Your task to perform on an android device: What's the price of the Hisense TV? Image 0: 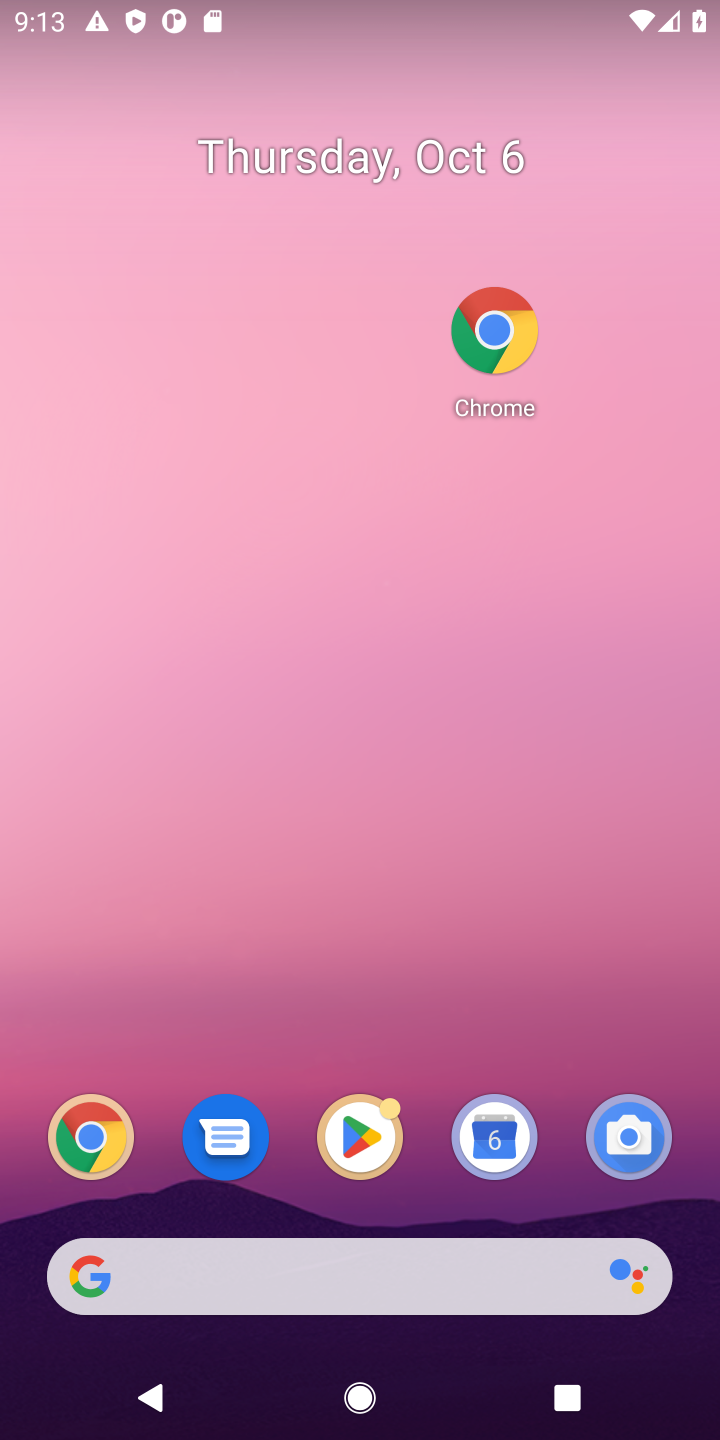
Step 0: click (87, 1145)
Your task to perform on an android device: What's the price of the Hisense TV? Image 1: 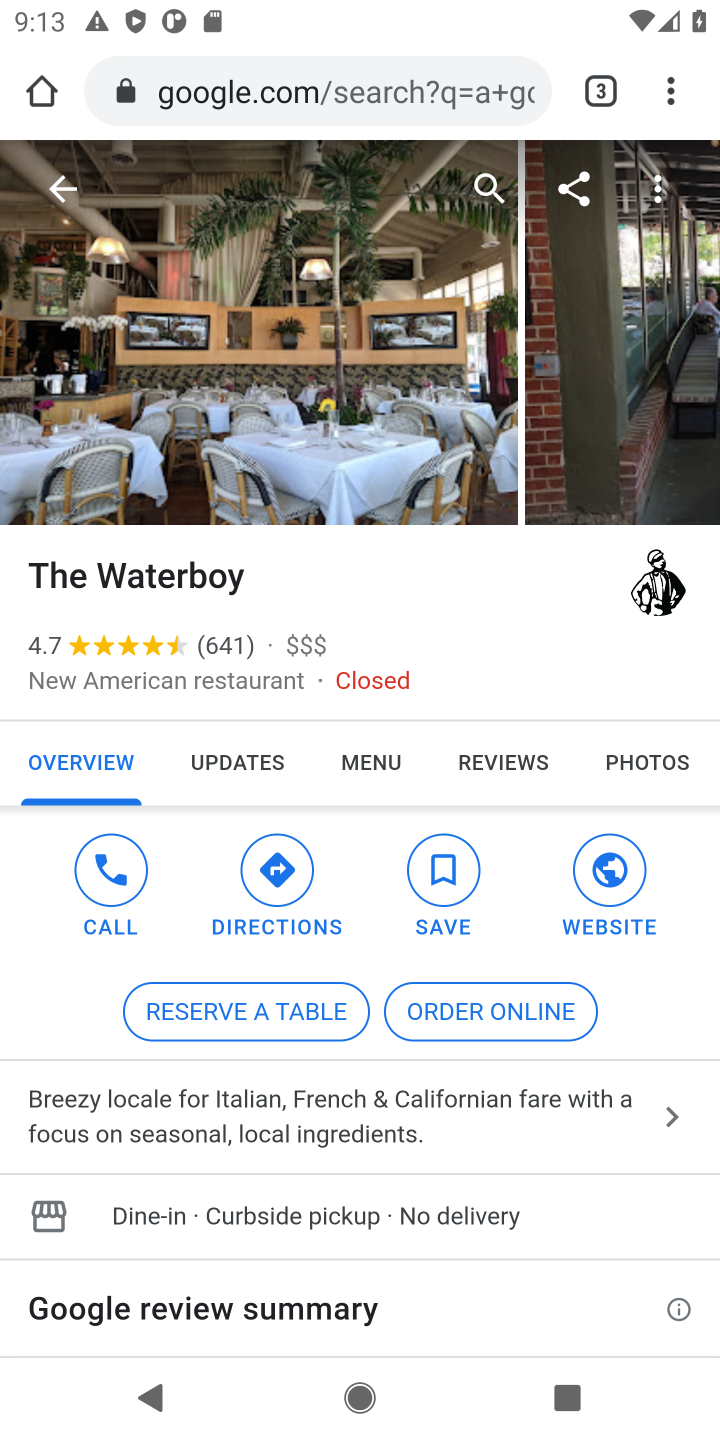
Step 1: click (348, 93)
Your task to perform on an android device: What's the price of the Hisense TV? Image 2: 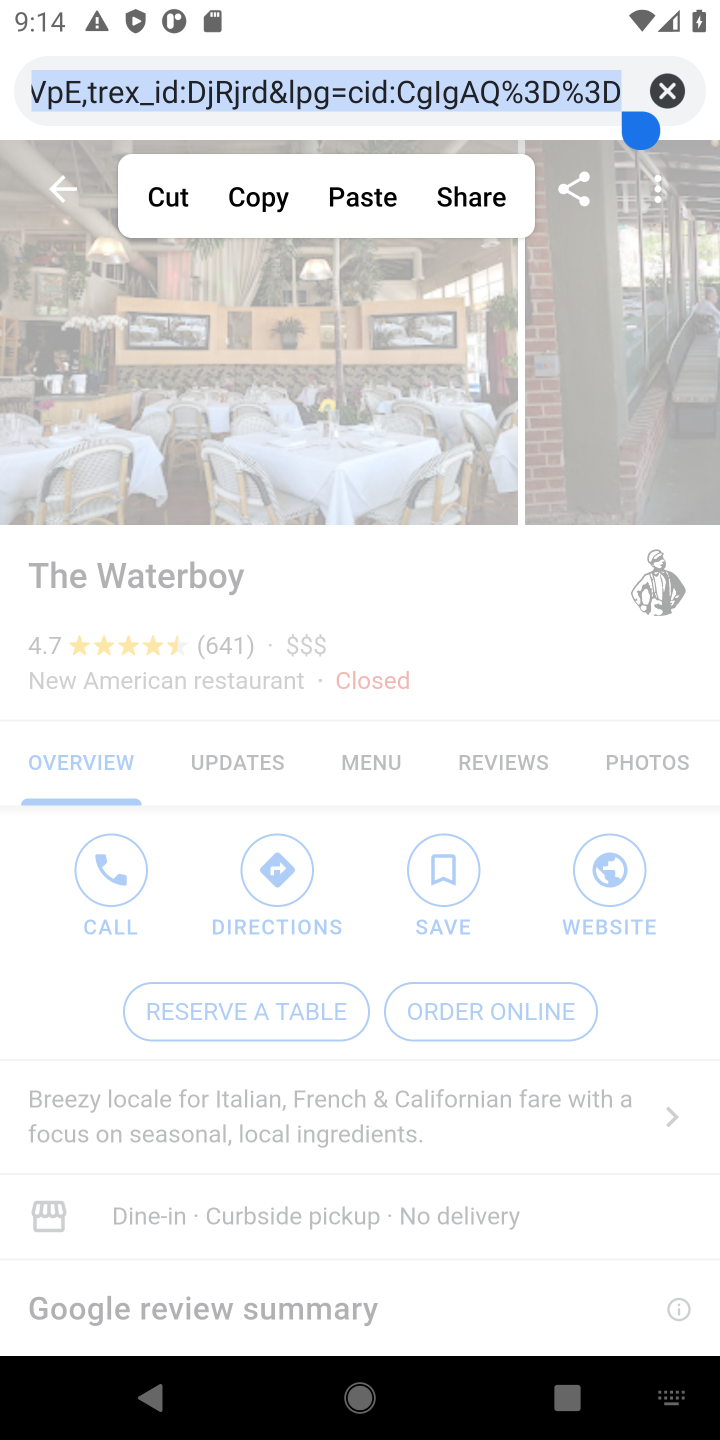
Step 2: click (672, 93)
Your task to perform on an android device: What's the price of the Hisense TV? Image 3: 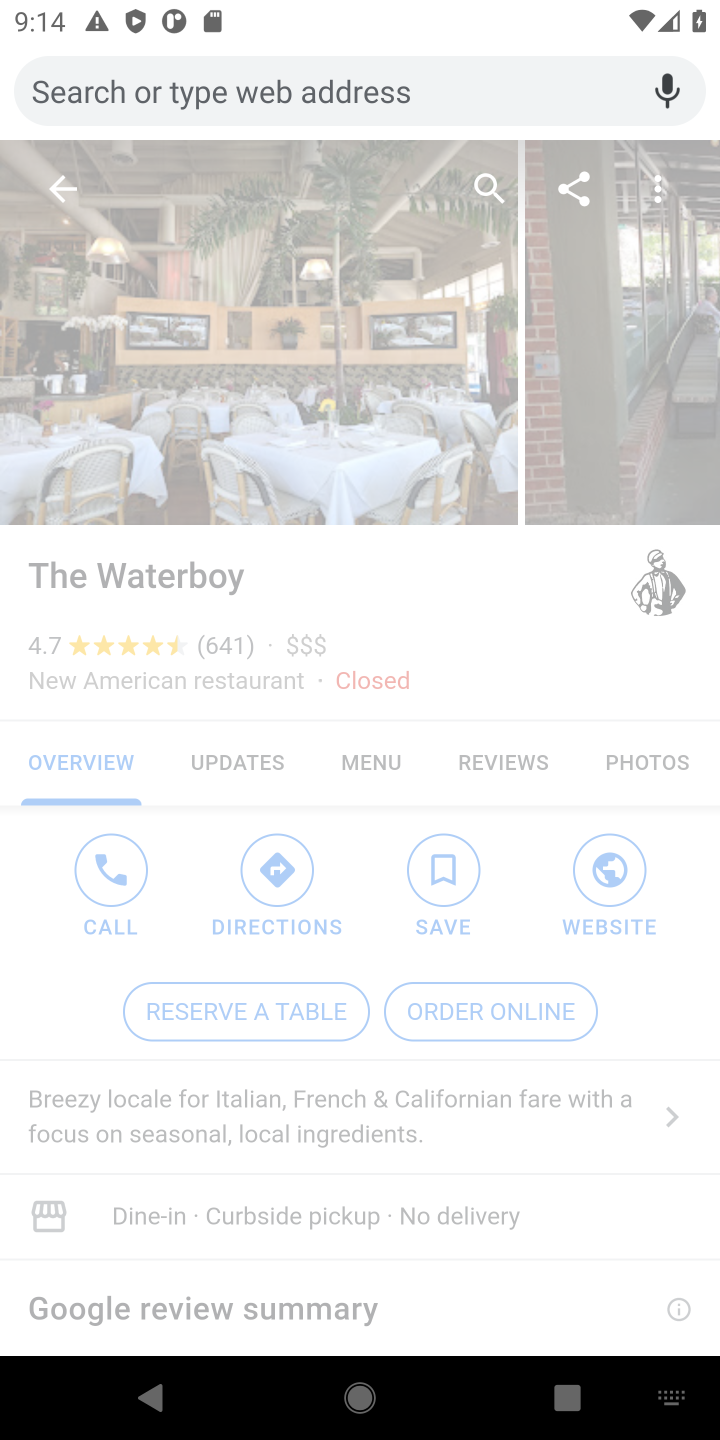
Step 3: type "the price of the Hisense TV"
Your task to perform on an android device: What's the price of the Hisense TV? Image 4: 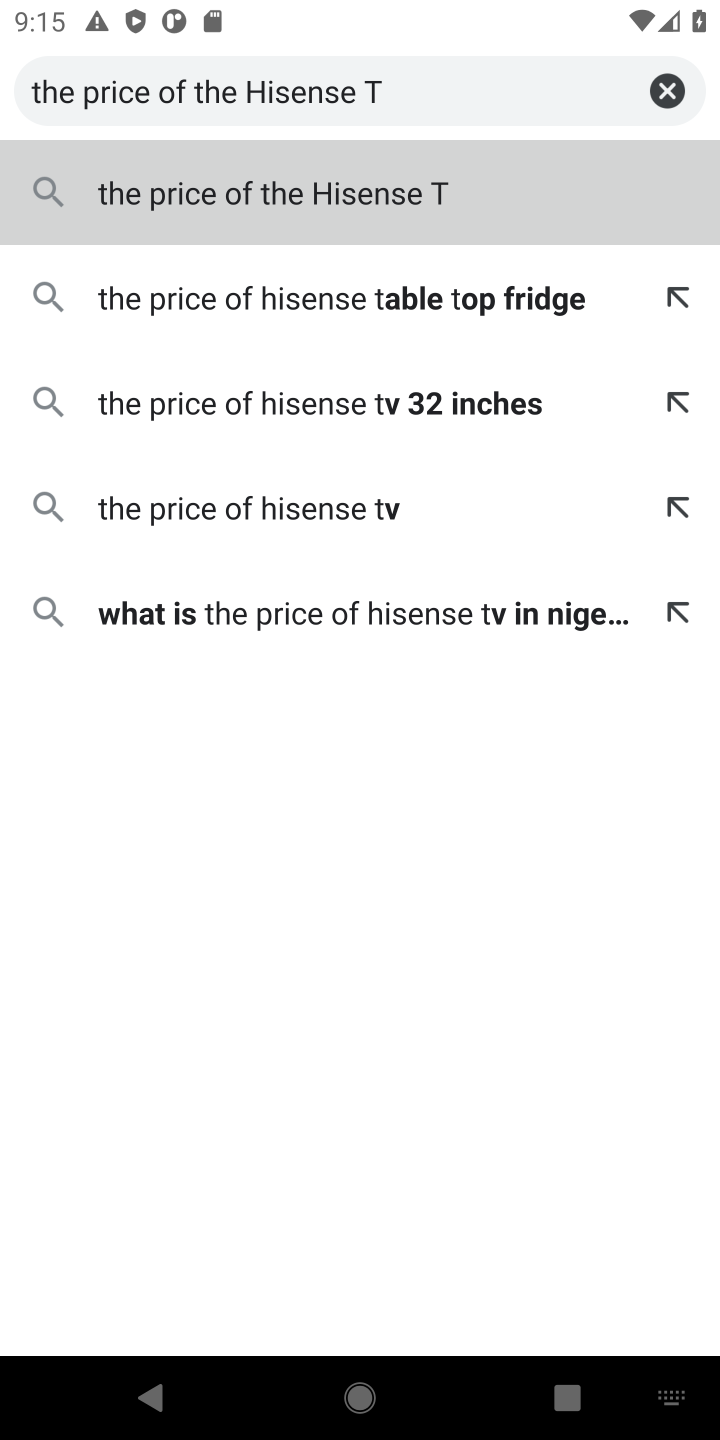
Step 4: click (331, 516)
Your task to perform on an android device: What's the price of the Hisense TV? Image 5: 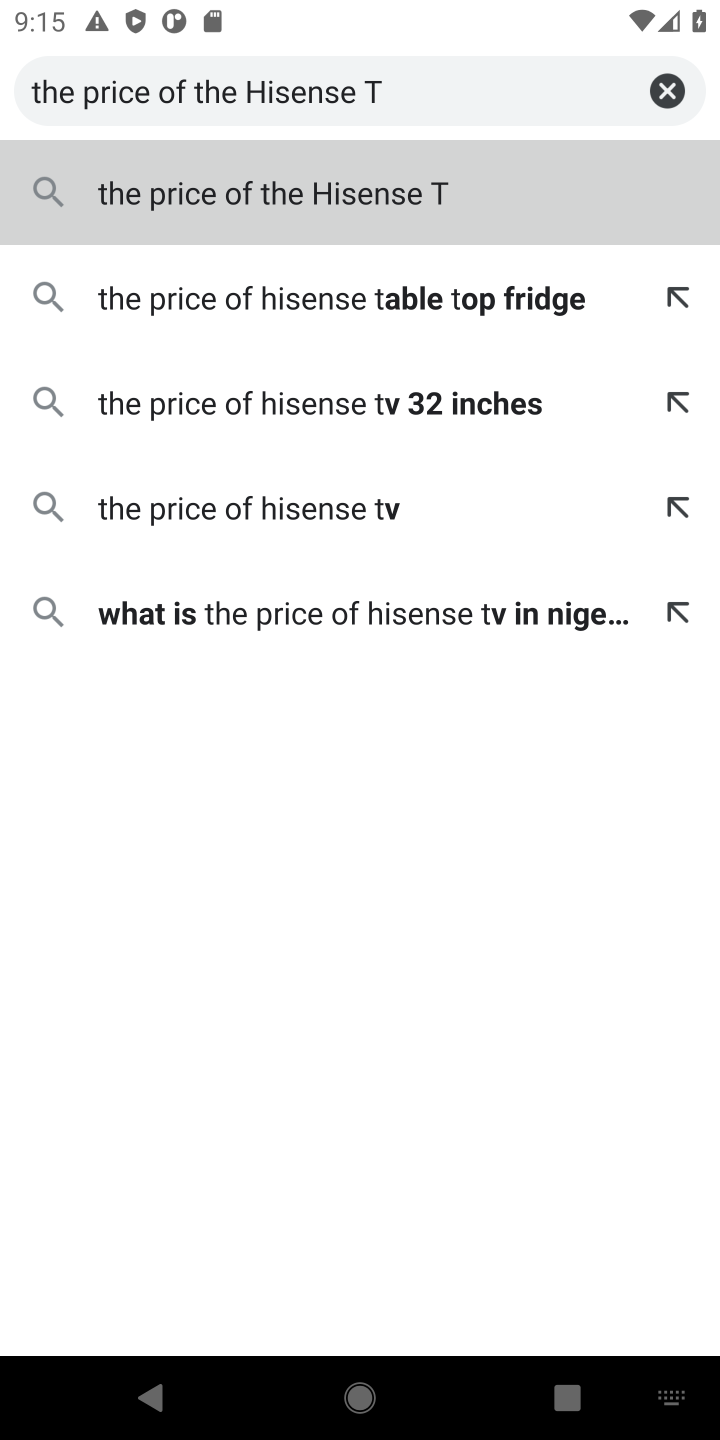
Step 5: click (217, 498)
Your task to perform on an android device: What's the price of the Hisense TV? Image 6: 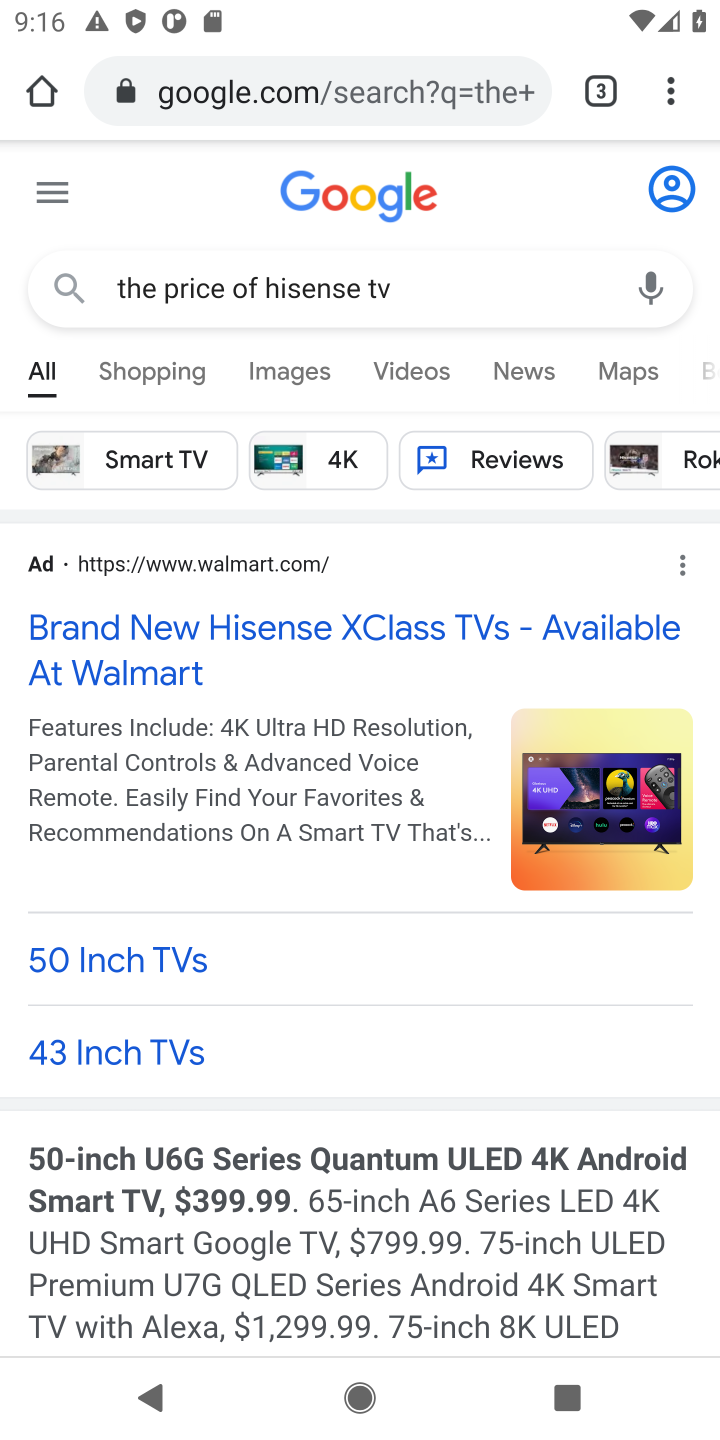
Step 6: click (129, 633)
Your task to perform on an android device: What's the price of the Hisense TV? Image 7: 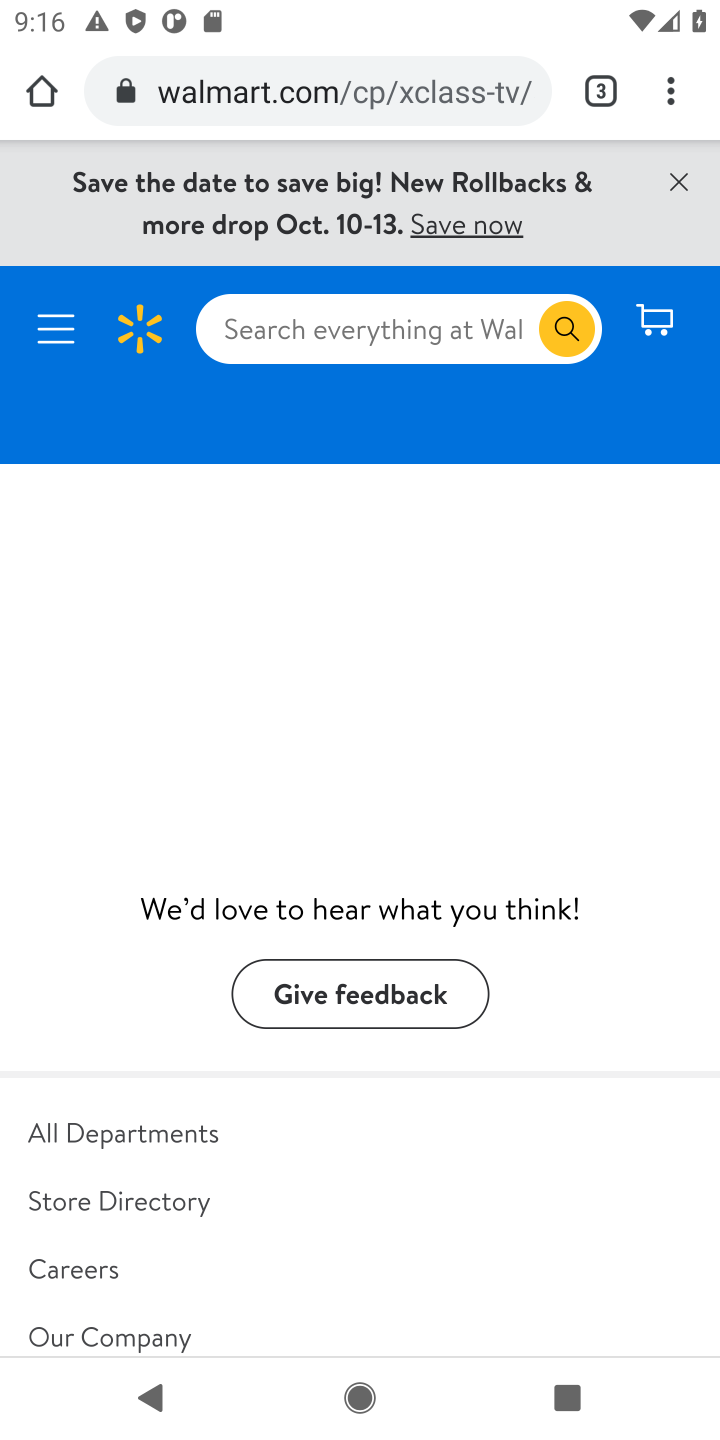
Step 7: drag from (580, 1129) to (482, 310)
Your task to perform on an android device: What's the price of the Hisense TV? Image 8: 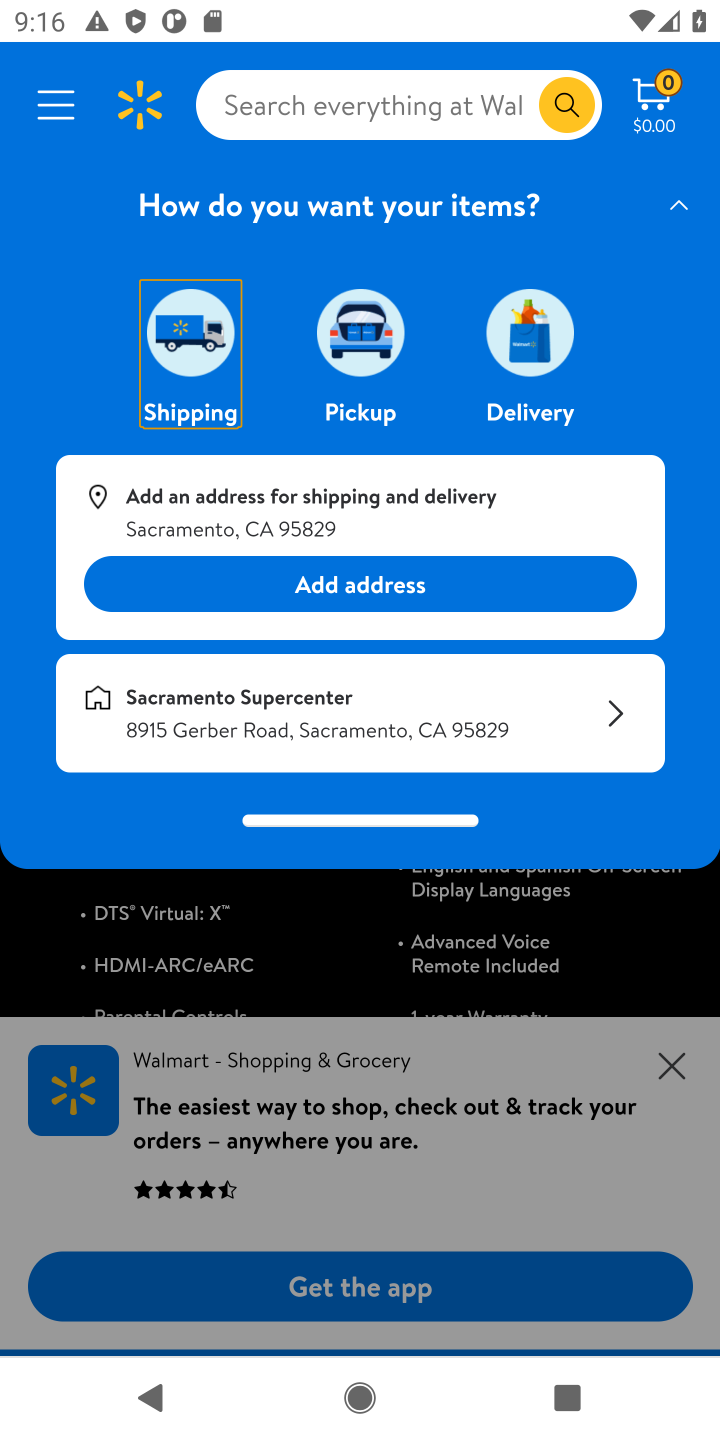
Step 8: drag from (540, 949) to (488, 376)
Your task to perform on an android device: What's the price of the Hisense TV? Image 9: 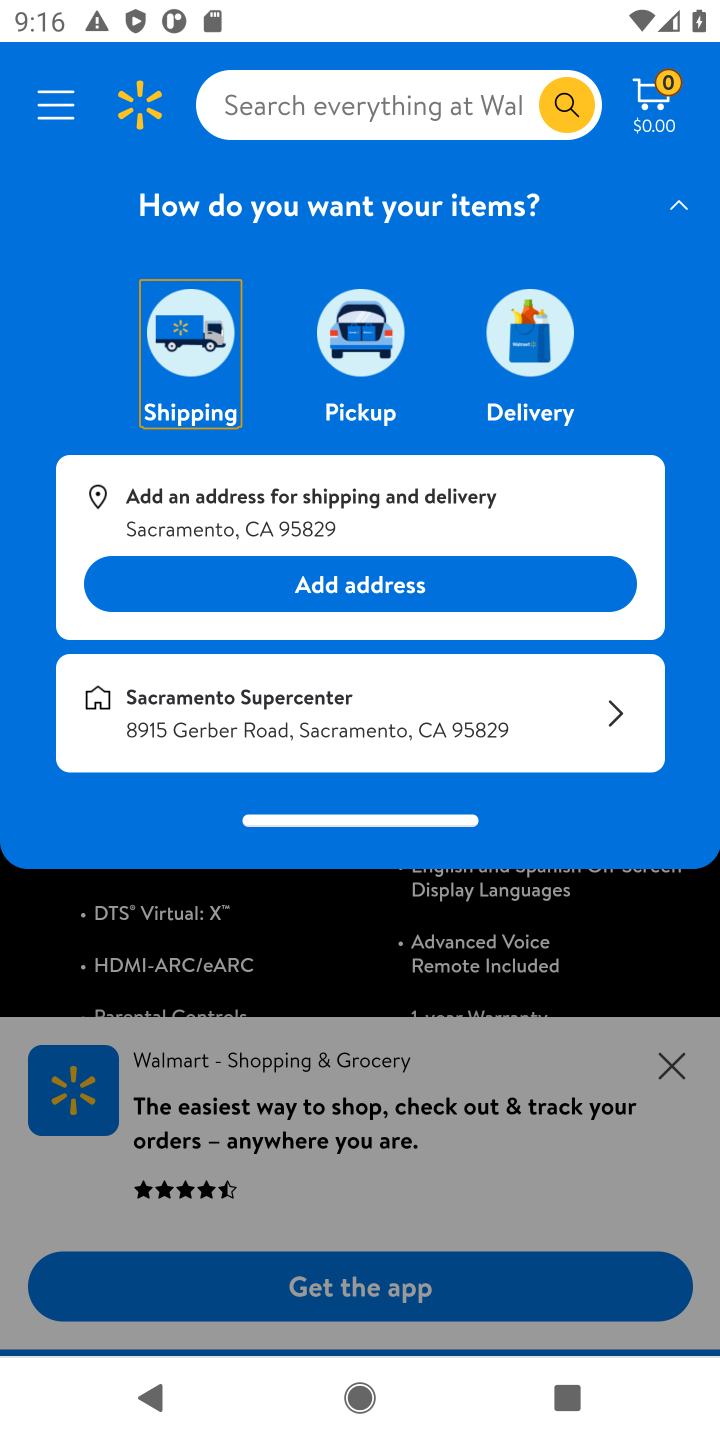
Step 9: click (667, 1059)
Your task to perform on an android device: What's the price of the Hisense TV? Image 10: 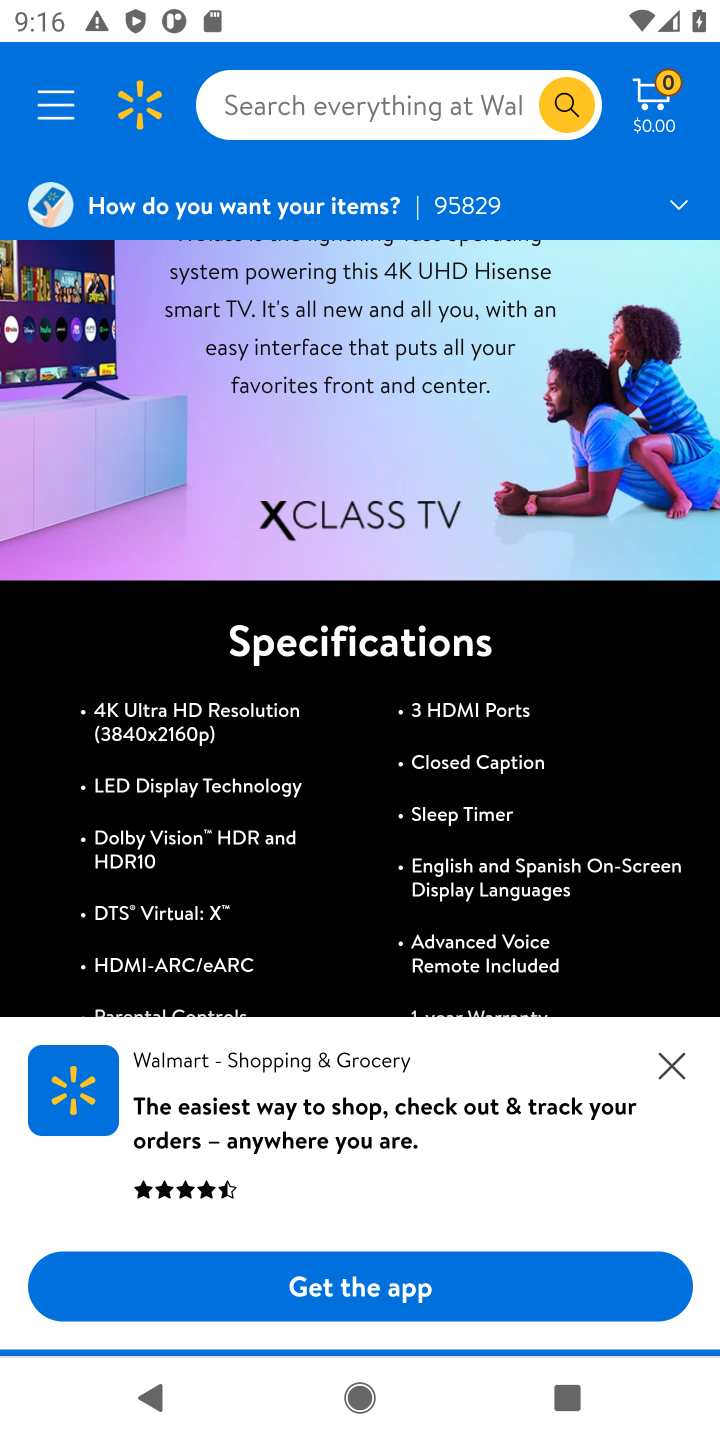
Step 10: task complete